Your task to perform on an android device: Go to Wikipedia Image 0: 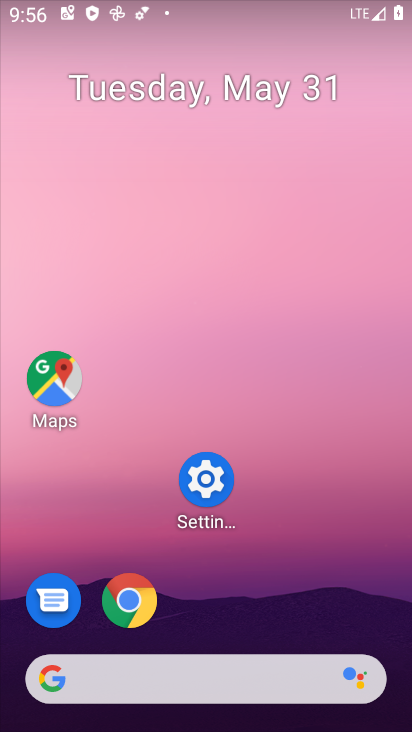
Step 0: click (148, 584)
Your task to perform on an android device: Go to Wikipedia Image 1: 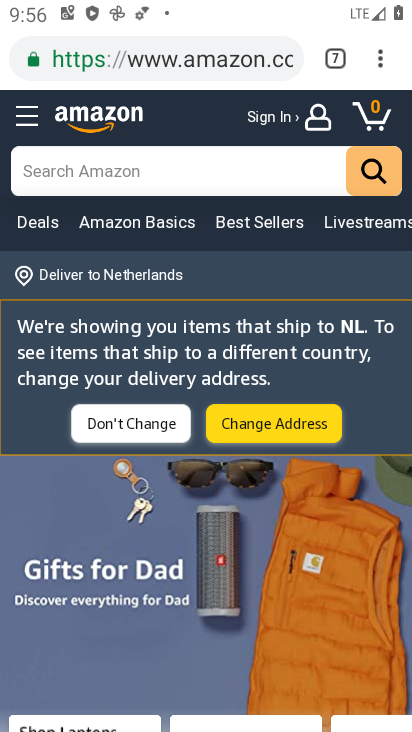
Step 1: click (339, 57)
Your task to perform on an android device: Go to Wikipedia Image 2: 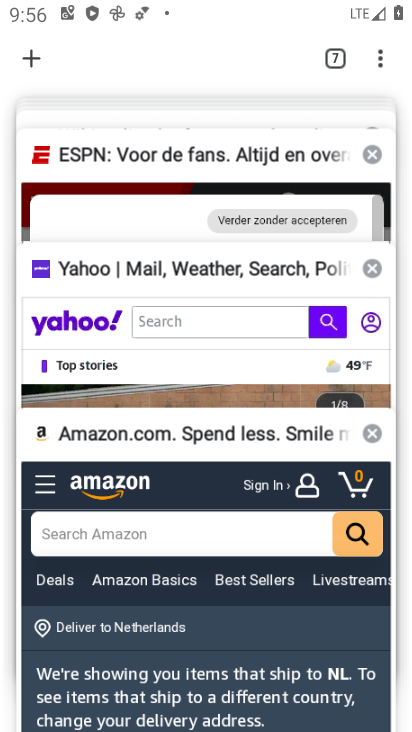
Step 2: click (38, 53)
Your task to perform on an android device: Go to Wikipedia Image 3: 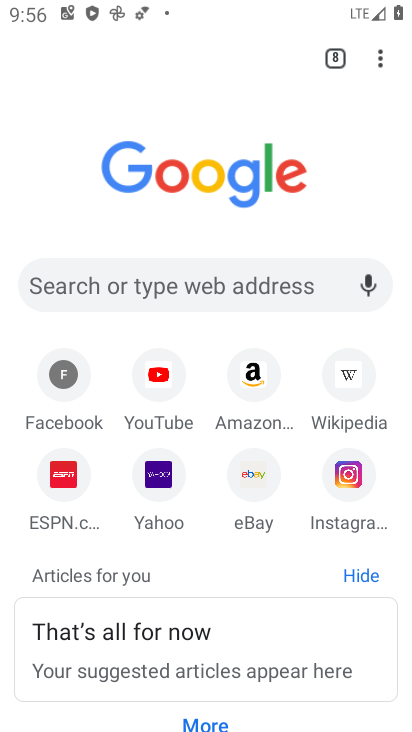
Step 3: click (346, 374)
Your task to perform on an android device: Go to Wikipedia Image 4: 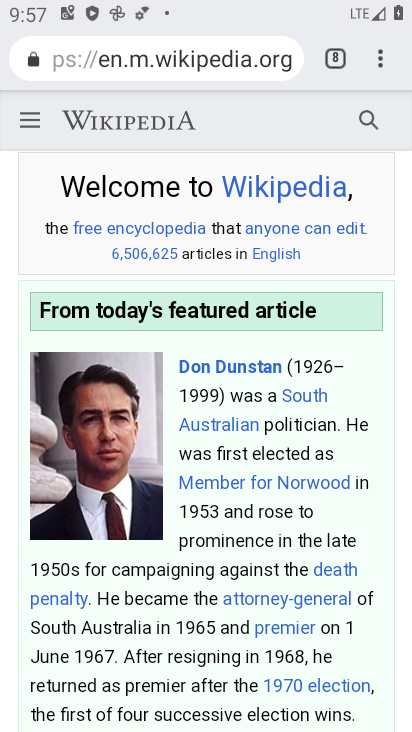
Step 4: task complete